Your task to perform on an android device: manage bookmarks in the chrome app Image 0: 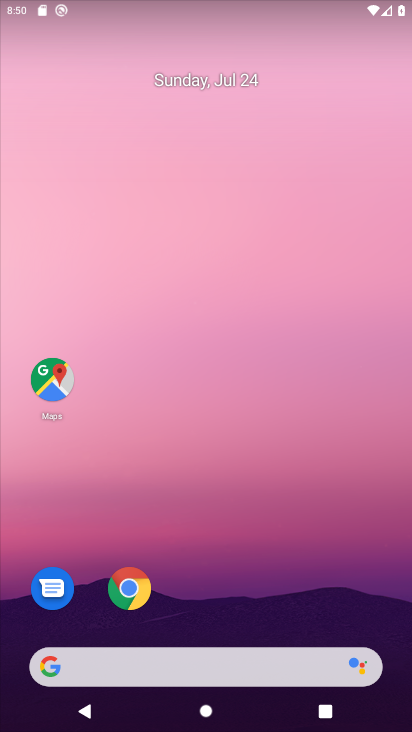
Step 0: click (141, 580)
Your task to perform on an android device: manage bookmarks in the chrome app Image 1: 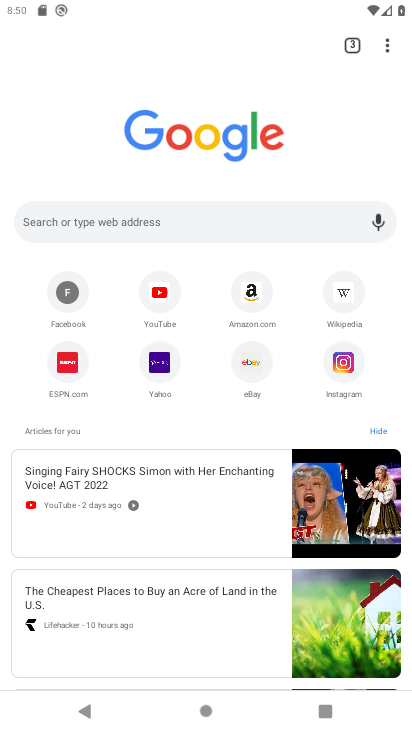
Step 1: click (387, 40)
Your task to perform on an android device: manage bookmarks in the chrome app Image 2: 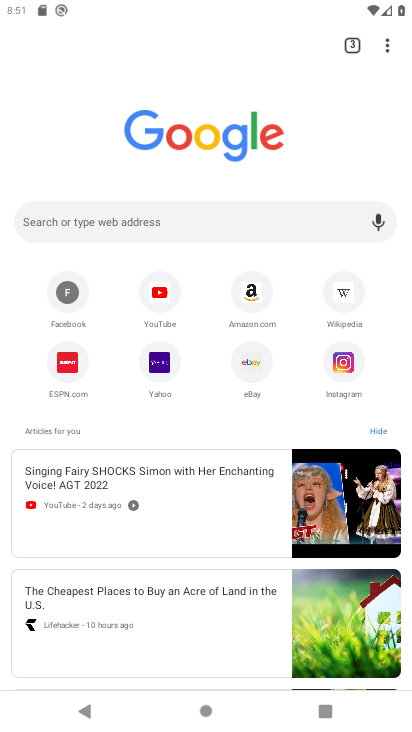
Step 2: click (385, 45)
Your task to perform on an android device: manage bookmarks in the chrome app Image 3: 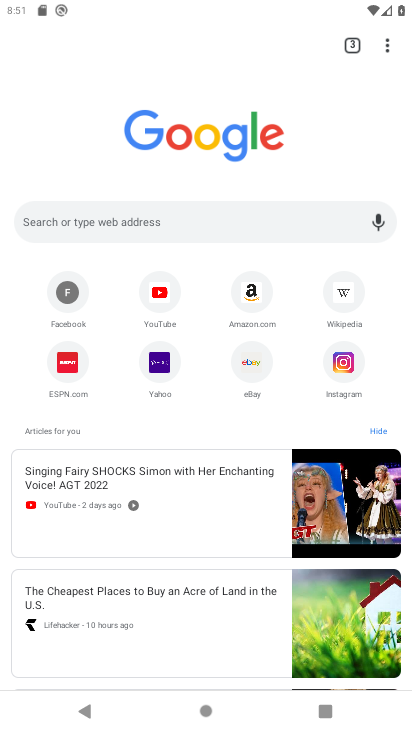
Step 3: click (385, 43)
Your task to perform on an android device: manage bookmarks in the chrome app Image 4: 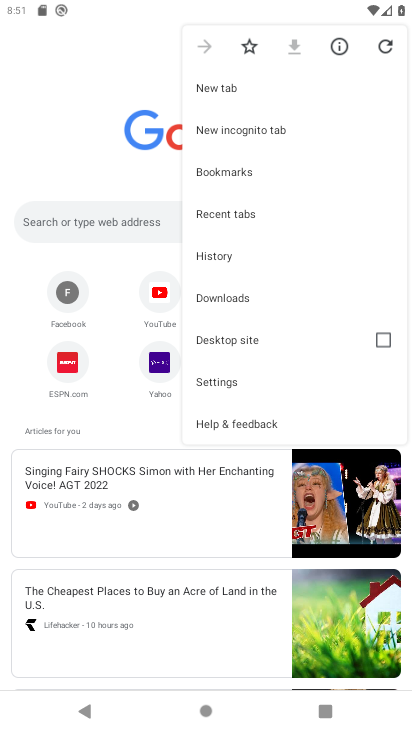
Step 4: click (228, 168)
Your task to perform on an android device: manage bookmarks in the chrome app Image 5: 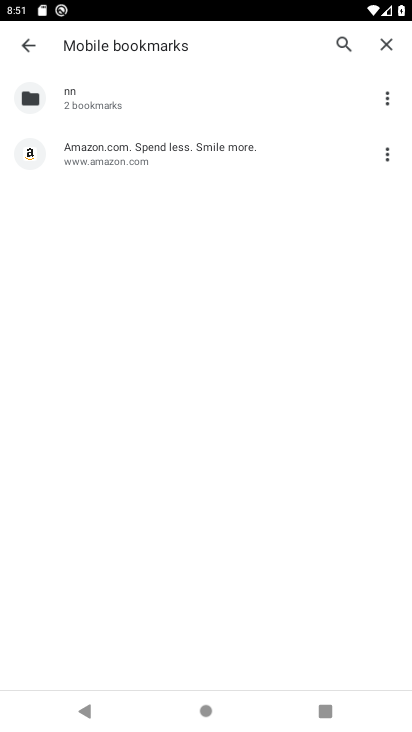
Step 5: click (391, 148)
Your task to perform on an android device: manage bookmarks in the chrome app Image 6: 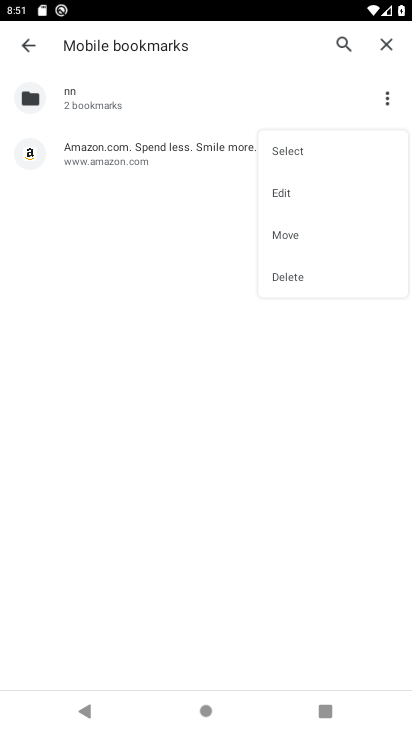
Step 6: click (281, 269)
Your task to perform on an android device: manage bookmarks in the chrome app Image 7: 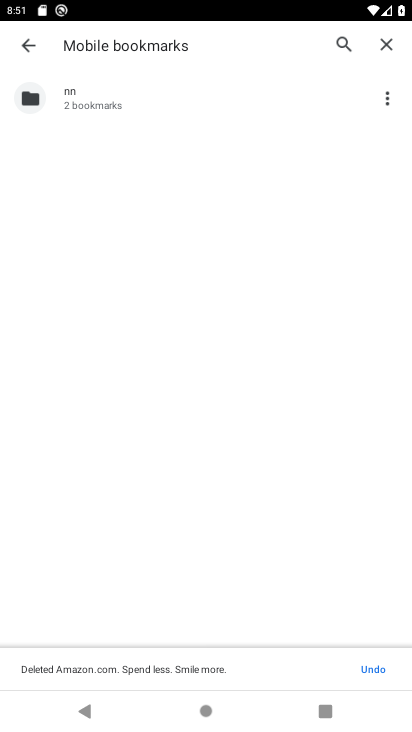
Step 7: task complete